Your task to perform on an android device: Go to internet settings Image 0: 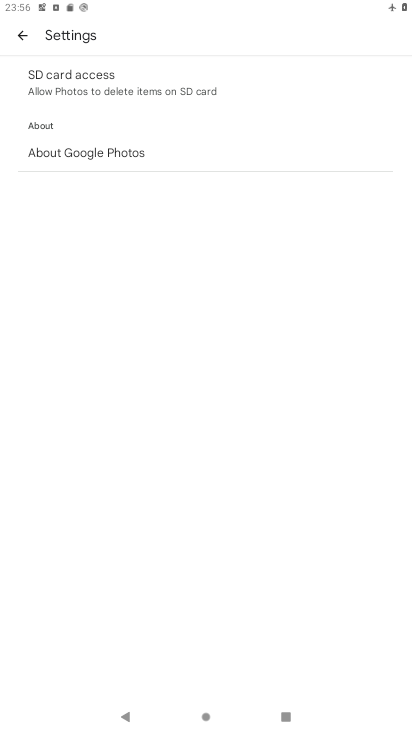
Step 0: press home button
Your task to perform on an android device: Go to internet settings Image 1: 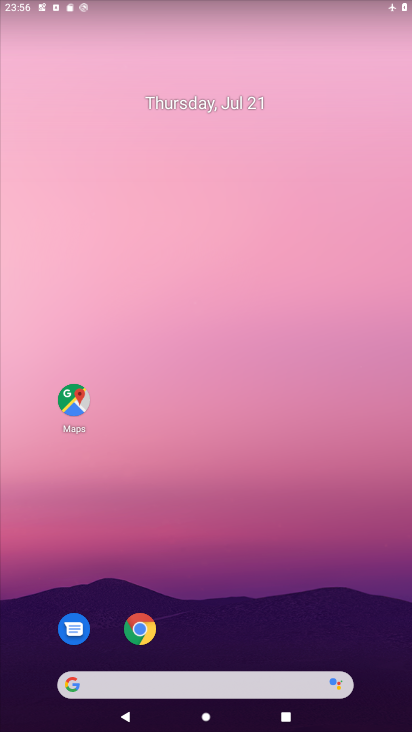
Step 1: drag from (270, 540) to (303, 77)
Your task to perform on an android device: Go to internet settings Image 2: 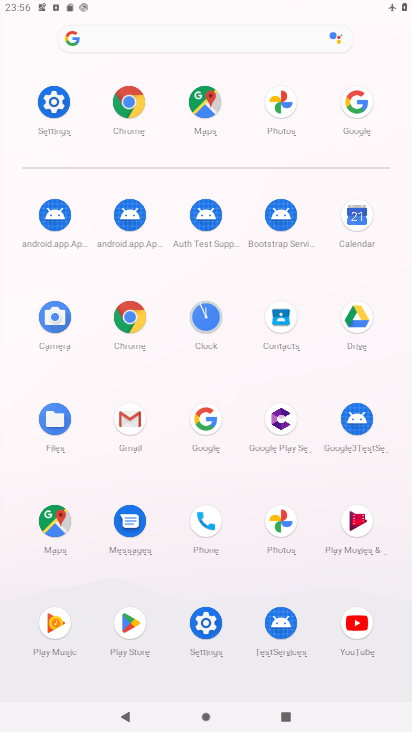
Step 2: click (203, 613)
Your task to perform on an android device: Go to internet settings Image 3: 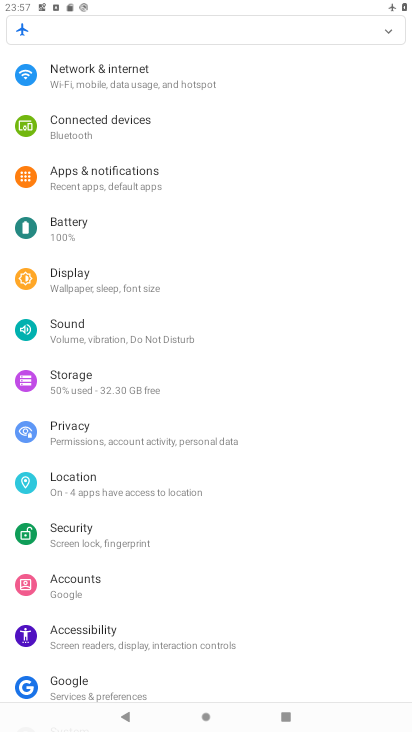
Step 3: click (203, 77)
Your task to perform on an android device: Go to internet settings Image 4: 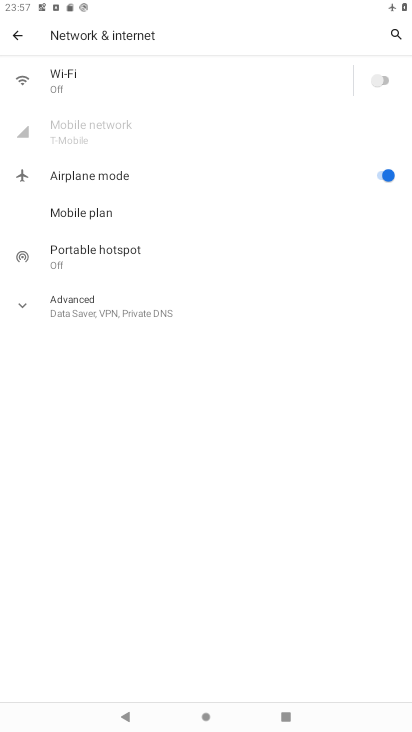
Step 4: click (401, 173)
Your task to perform on an android device: Go to internet settings Image 5: 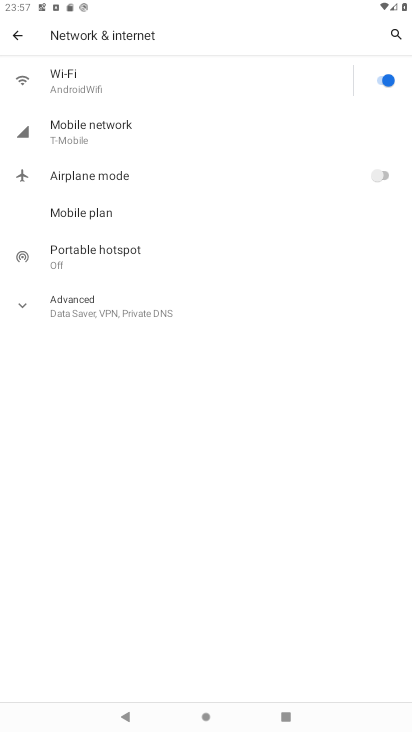
Step 5: click (228, 126)
Your task to perform on an android device: Go to internet settings Image 6: 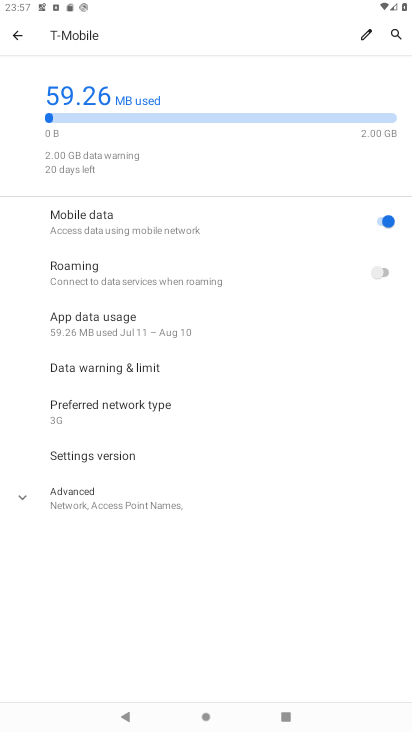
Step 6: click (165, 499)
Your task to perform on an android device: Go to internet settings Image 7: 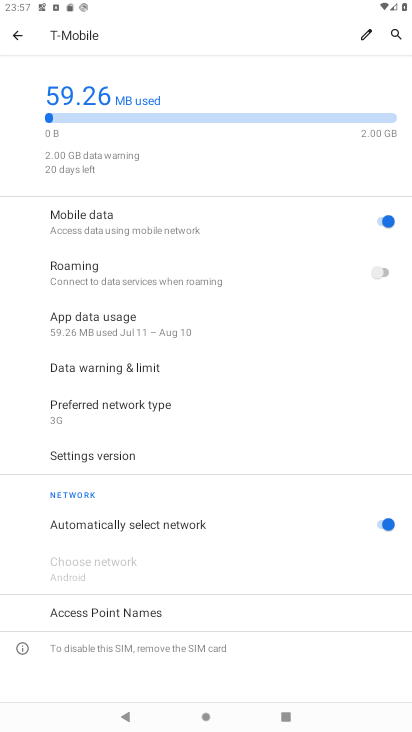
Step 7: task complete